Your task to perform on an android device: change text size in settings app Image 0: 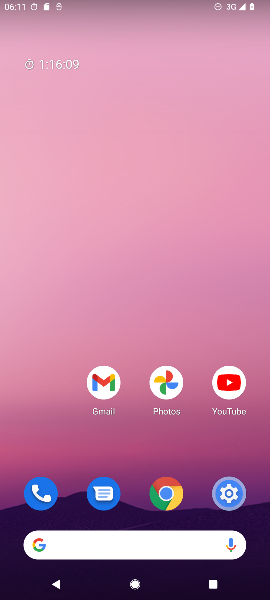
Step 0: press home button
Your task to perform on an android device: change text size in settings app Image 1: 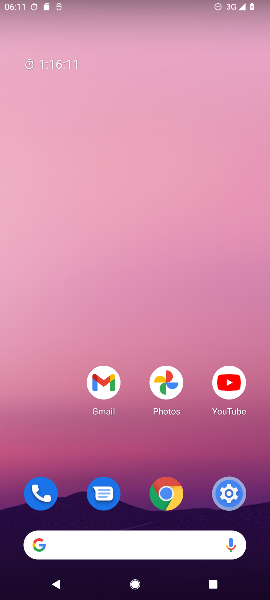
Step 1: drag from (58, 457) to (68, 183)
Your task to perform on an android device: change text size in settings app Image 2: 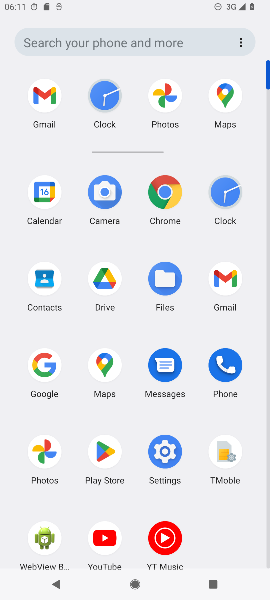
Step 2: click (159, 451)
Your task to perform on an android device: change text size in settings app Image 3: 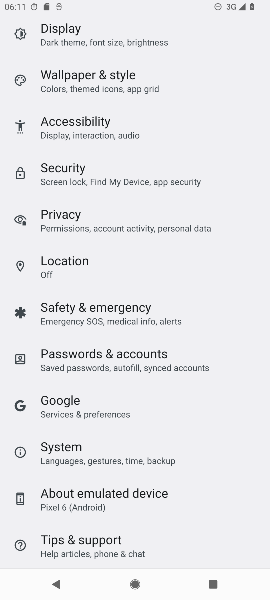
Step 3: drag from (225, 448) to (240, 350)
Your task to perform on an android device: change text size in settings app Image 4: 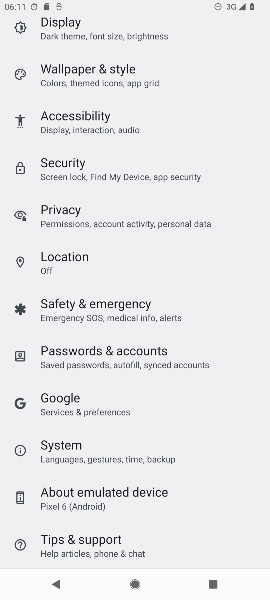
Step 4: drag from (237, 311) to (237, 369)
Your task to perform on an android device: change text size in settings app Image 5: 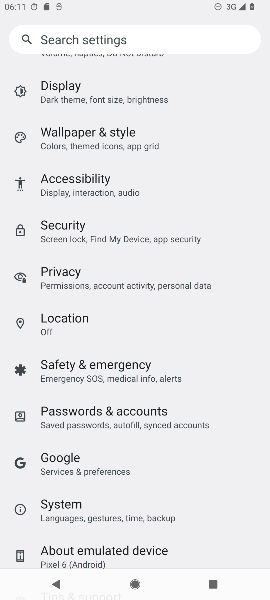
Step 5: drag from (235, 312) to (234, 347)
Your task to perform on an android device: change text size in settings app Image 6: 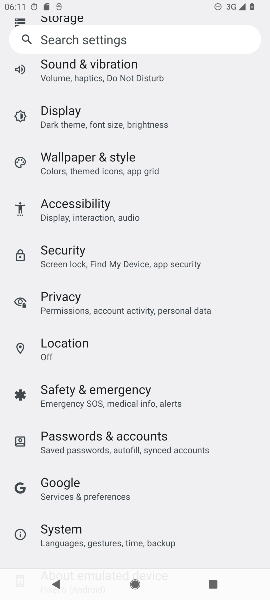
Step 6: drag from (239, 248) to (236, 344)
Your task to perform on an android device: change text size in settings app Image 7: 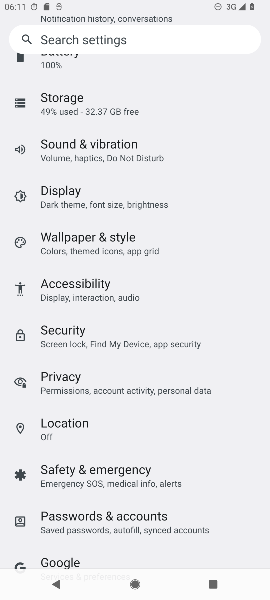
Step 7: drag from (232, 237) to (229, 321)
Your task to perform on an android device: change text size in settings app Image 8: 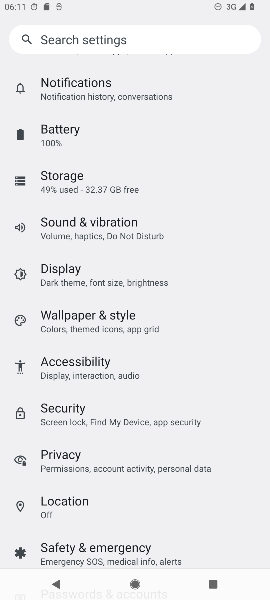
Step 8: drag from (231, 212) to (233, 317)
Your task to perform on an android device: change text size in settings app Image 9: 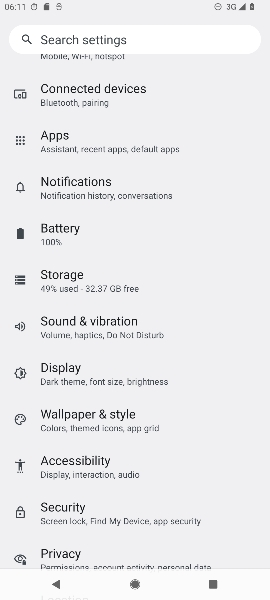
Step 9: drag from (224, 187) to (224, 306)
Your task to perform on an android device: change text size in settings app Image 10: 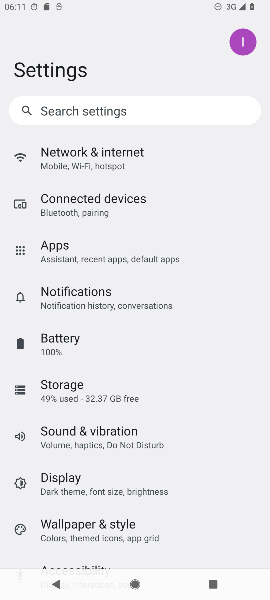
Step 10: click (187, 479)
Your task to perform on an android device: change text size in settings app Image 11: 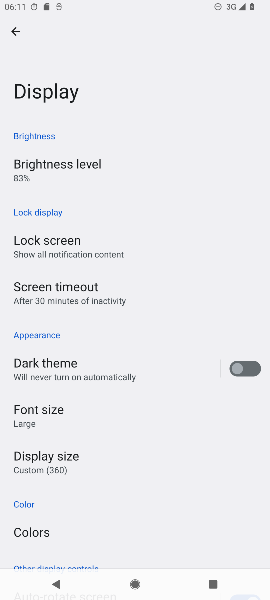
Step 11: click (61, 409)
Your task to perform on an android device: change text size in settings app Image 12: 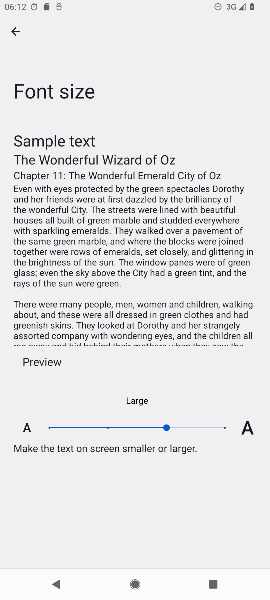
Step 12: click (224, 425)
Your task to perform on an android device: change text size in settings app Image 13: 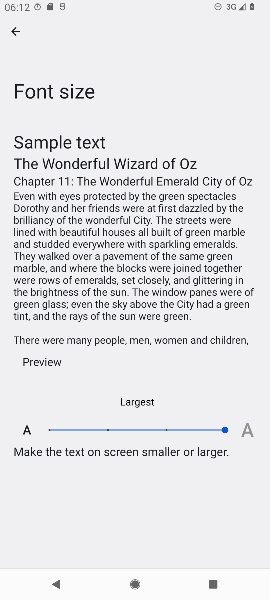
Step 13: task complete